Your task to perform on an android device: turn off picture-in-picture Image 0: 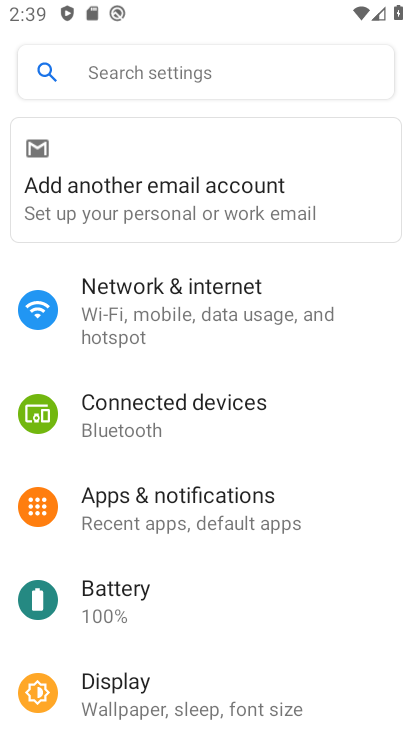
Step 0: press home button
Your task to perform on an android device: turn off picture-in-picture Image 1: 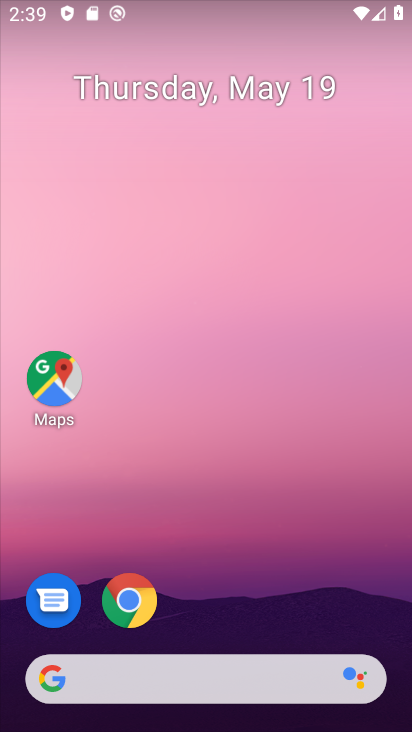
Step 1: click (124, 599)
Your task to perform on an android device: turn off picture-in-picture Image 2: 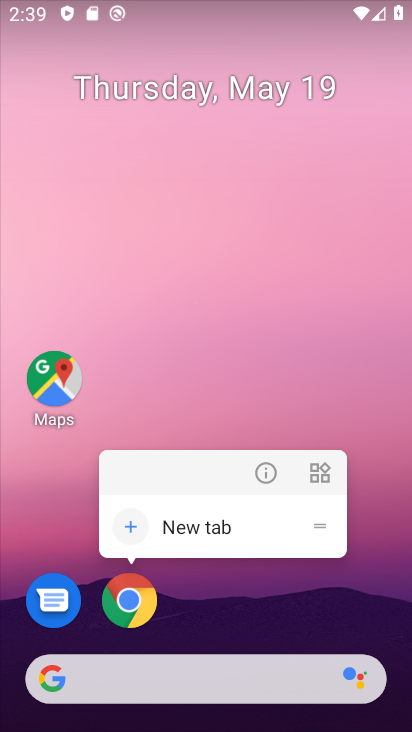
Step 2: click (265, 474)
Your task to perform on an android device: turn off picture-in-picture Image 3: 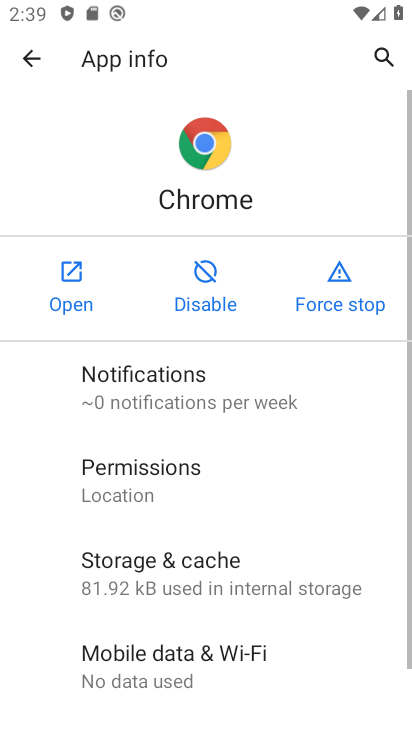
Step 3: drag from (173, 617) to (210, 290)
Your task to perform on an android device: turn off picture-in-picture Image 4: 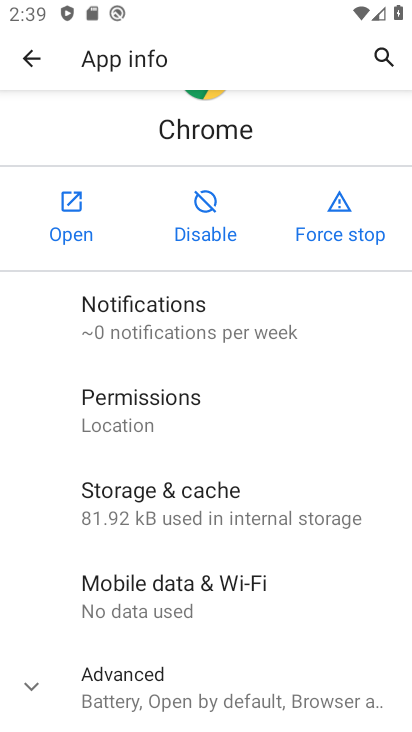
Step 4: click (143, 684)
Your task to perform on an android device: turn off picture-in-picture Image 5: 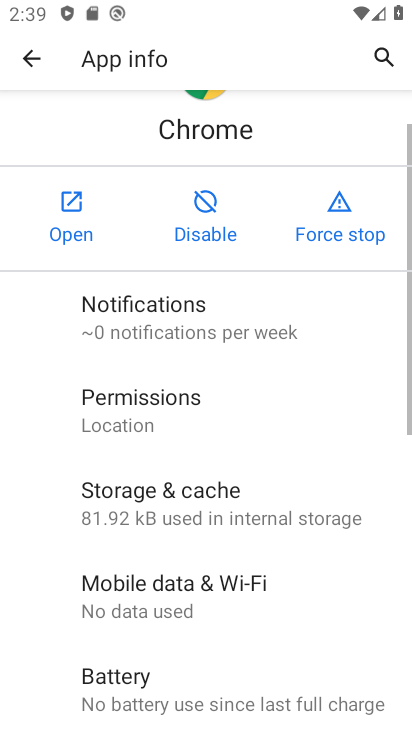
Step 5: drag from (143, 684) to (164, 416)
Your task to perform on an android device: turn off picture-in-picture Image 6: 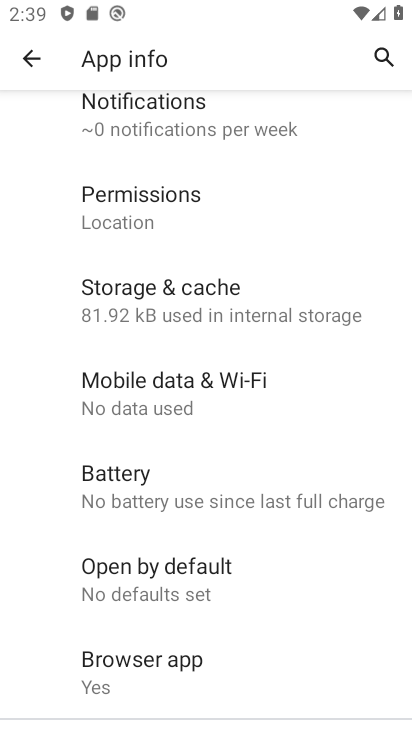
Step 6: drag from (150, 629) to (168, 443)
Your task to perform on an android device: turn off picture-in-picture Image 7: 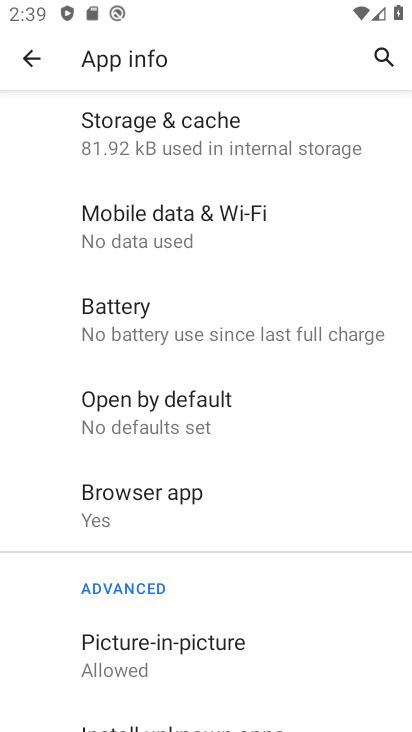
Step 7: click (165, 663)
Your task to perform on an android device: turn off picture-in-picture Image 8: 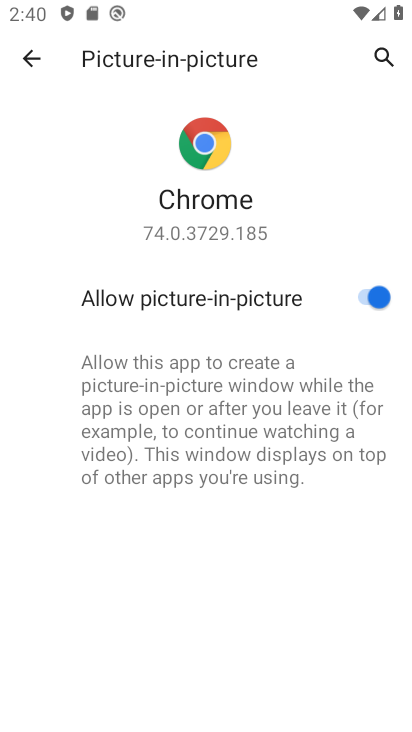
Step 8: click (352, 287)
Your task to perform on an android device: turn off picture-in-picture Image 9: 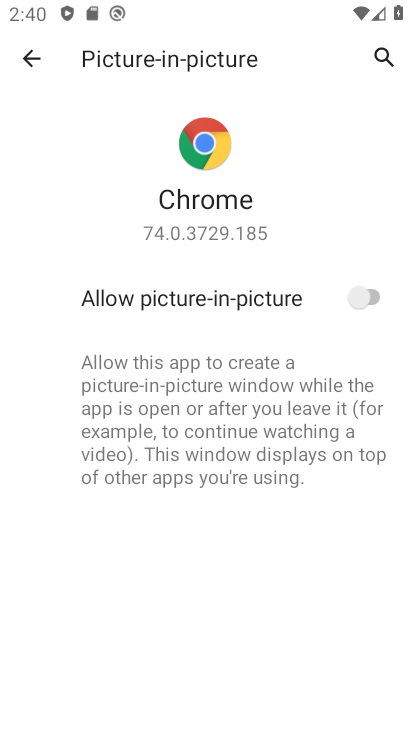
Step 9: task complete